Your task to perform on an android device: Open Google Maps and go to "Timeline" Image 0: 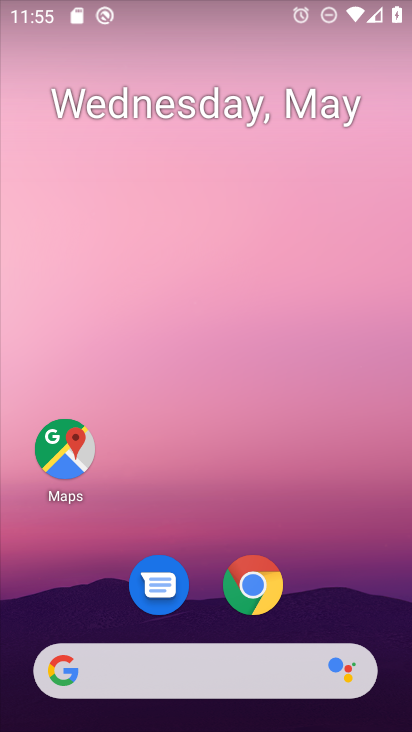
Step 0: click (70, 445)
Your task to perform on an android device: Open Google Maps and go to "Timeline" Image 1: 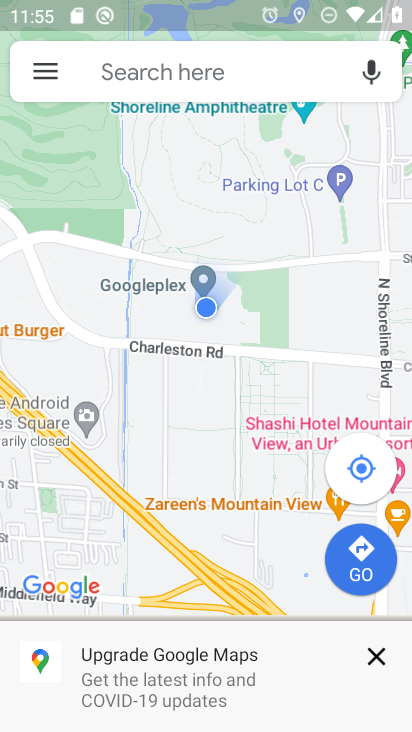
Step 1: click (47, 71)
Your task to perform on an android device: Open Google Maps and go to "Timeline" Image 2: 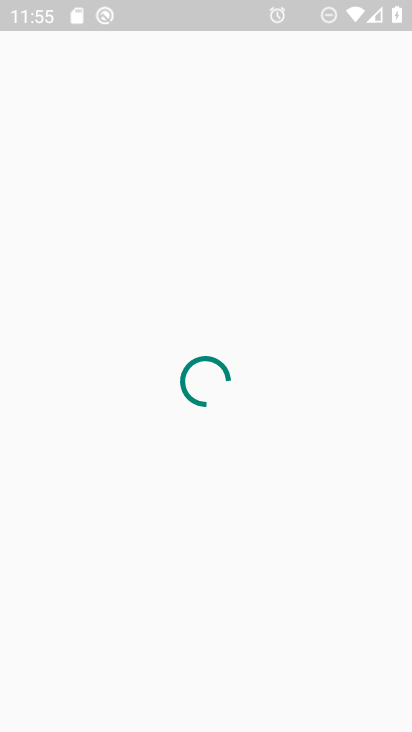
Step 2: click (47, 71)
Your task to perform on an android device: Open Google Maps and go to "Timeline" Image 3: 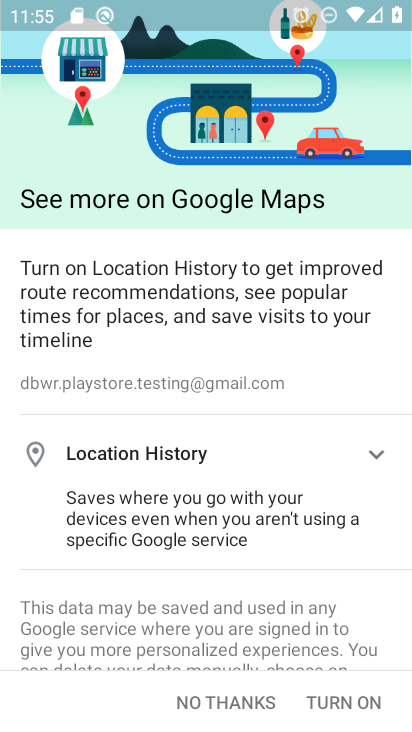
Step 3: click (342, 695)
Your task to perform on an android device: Open Google Maps and go to "Timeline" Image 4: 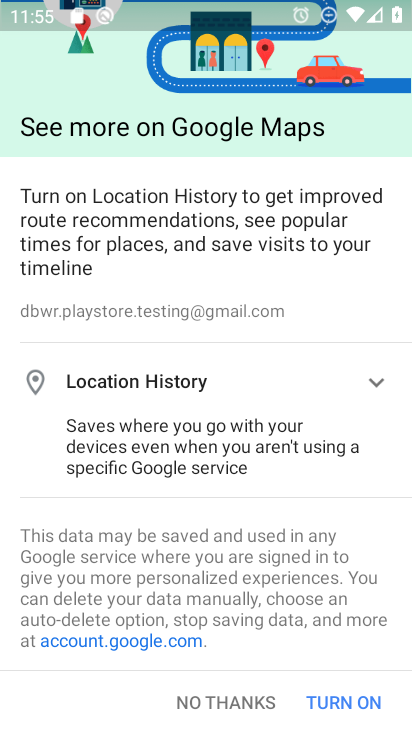
Step 4: click (342, 695)
Your task to perform on an android device: Open Google Maps and go to "Timeline" Image 5: 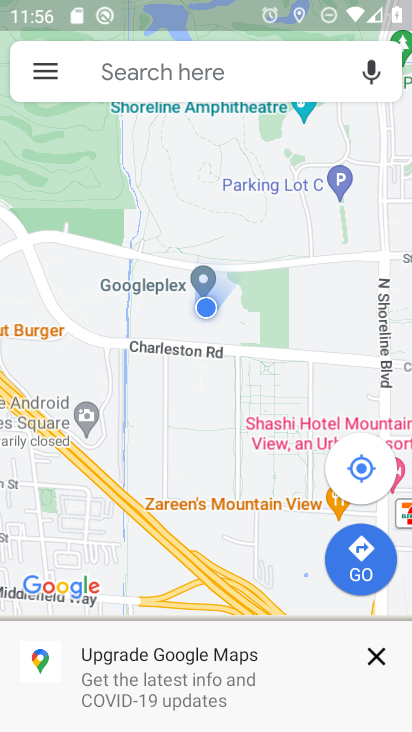
Step 5: click (46, 67)
Your task to perform on an android device: Open Google Maps and go to "Timeline" Image 6: 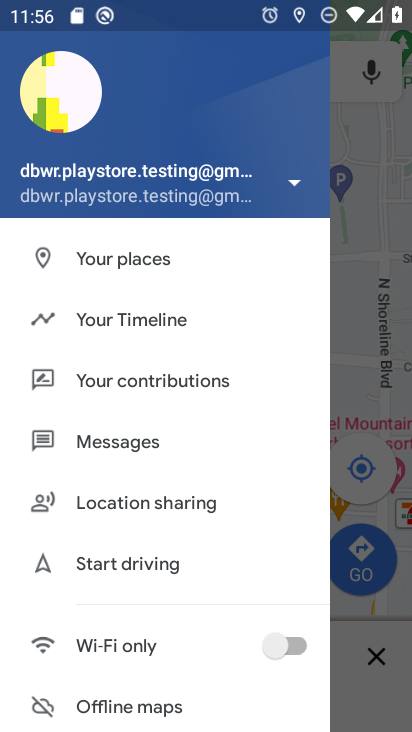
Step 6: click (141, 314)
Your task to perform on an android device: Open Google Maps and go to "Timeline" Image 7: 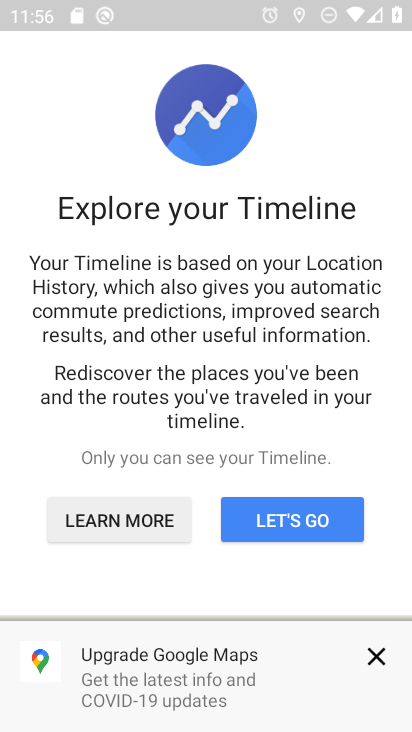
Step 7: click (293, 514)
Your task to perform on an android device: Open Google Maps and go to "Timeline" Image 8: 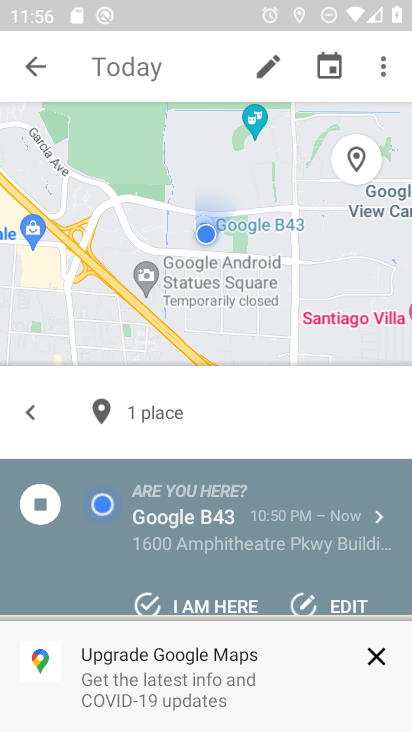
Step 8: task complete